Your task to perform on an android device: Search for usb-b on newegg, select the first entry, and add it to the cart. Image 0: 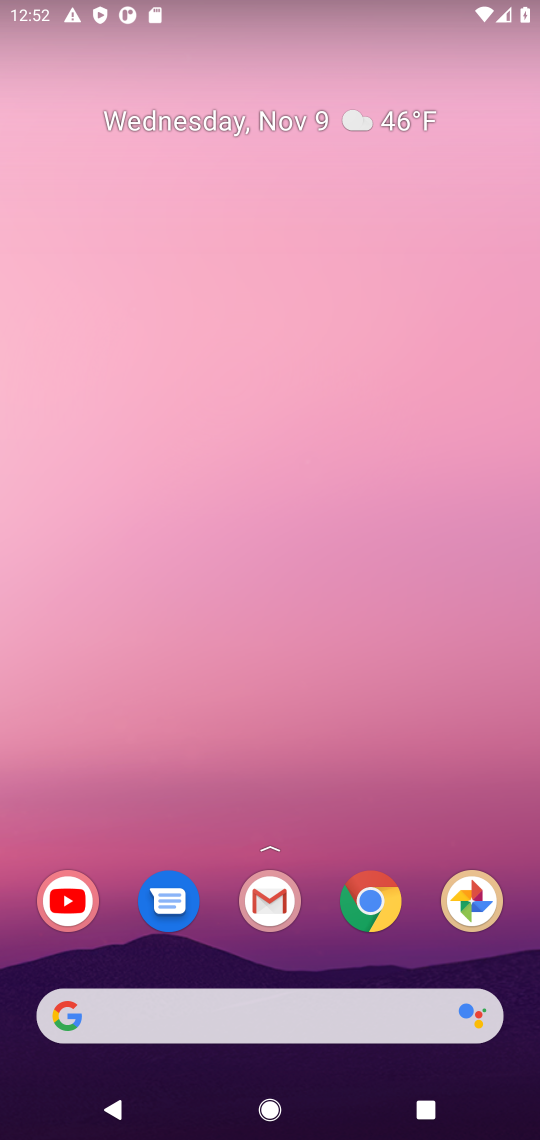
Step 0: click (370, 916)
Your task to perform on an android device: Search for usb-b on newegg, select the first entry, and add it to the cart. Image 1: 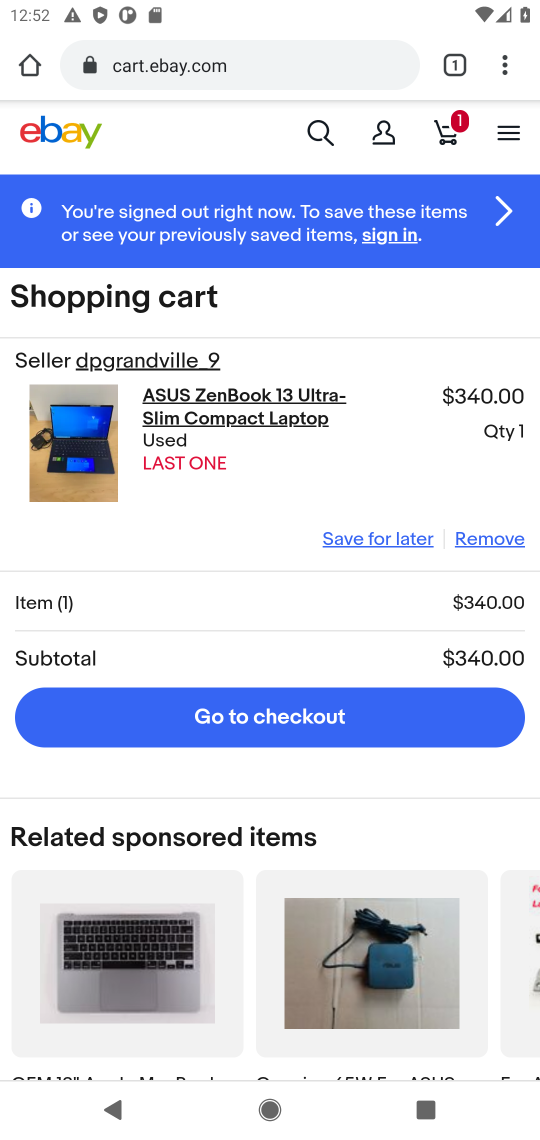
Step 1: click (303, 61)
Your task to perform on an android device: Search for usb-b on newegg, select the first entry, and add it to the cart. Image 2: 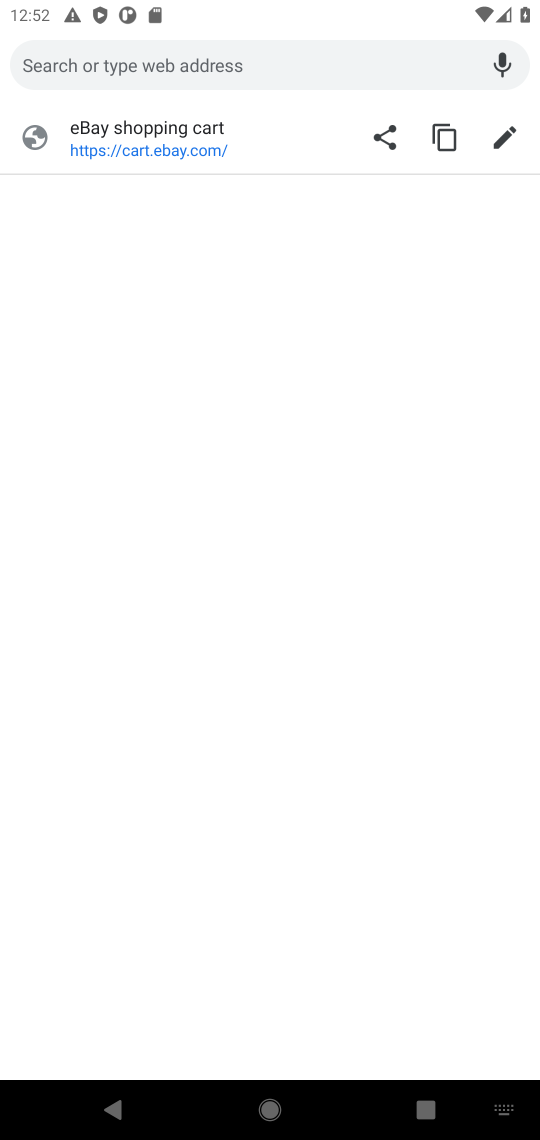
Step 2: type "newegg"
Your task to perform on an android device: Search for usb-b on newegg, select the first entry, and add it to the cart. Image 3: 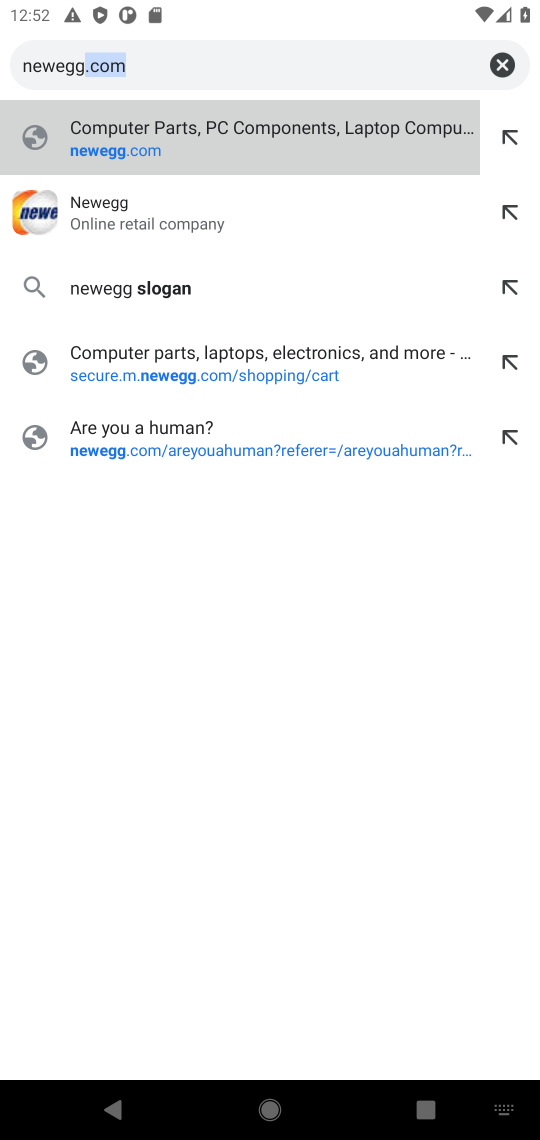
Step 3: press enter
Your task to perform on an android device: Search for usb-b on newegg, select the first entry, and add it to the cart. Image 4: 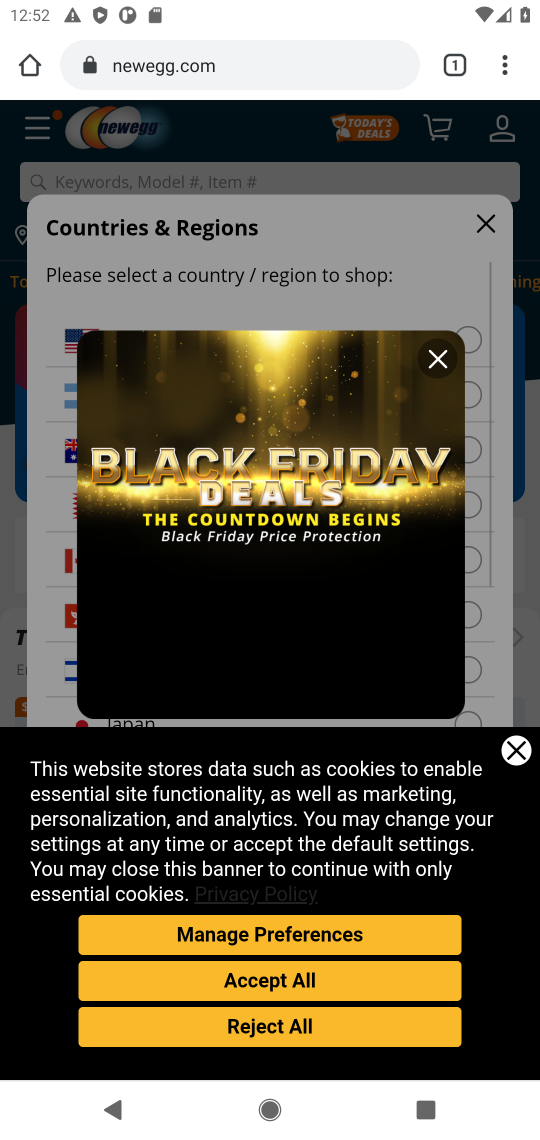
Step 4: click (261, 980)
Your task to perform on an android device: Search for usb-b on newegg, select the first entry, and add it to the cart. Image 5: 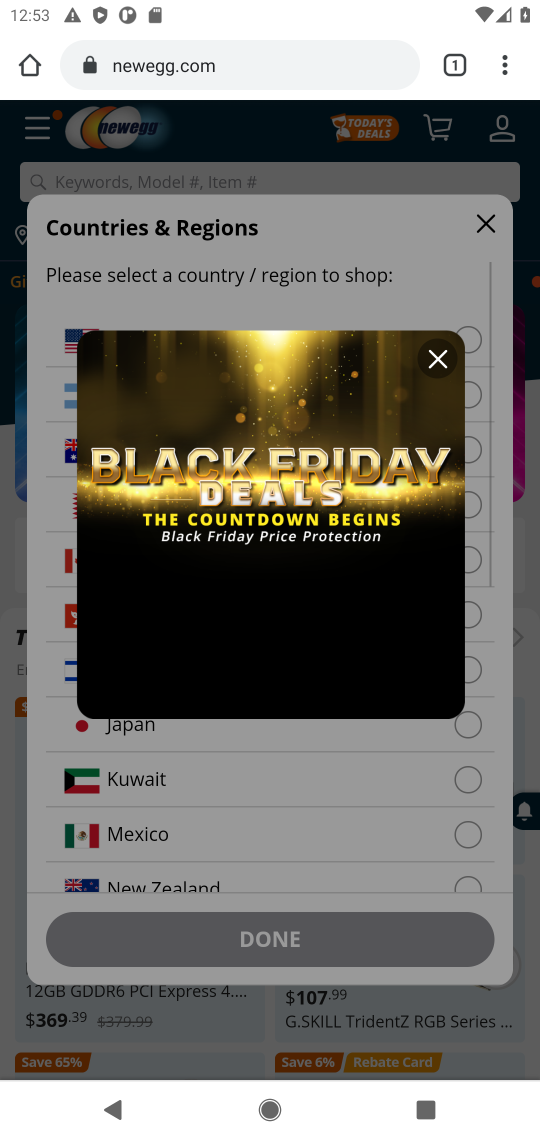
Step 5: click (436, 360)
Your task to perform on an android device: Search for usb-b on newegg, select the first entry, and add it to the cart. Image 6: 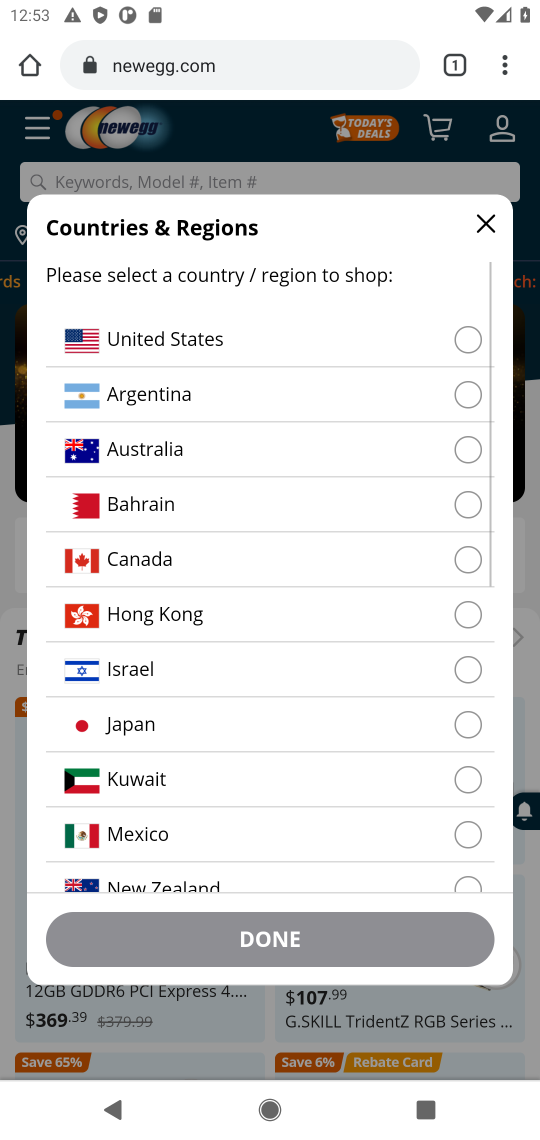
Step 6: click (464, 340)
Your task to perform on an android device: Search for usb-b on newegg, select the first entry, and add it to the cart. Image 7: 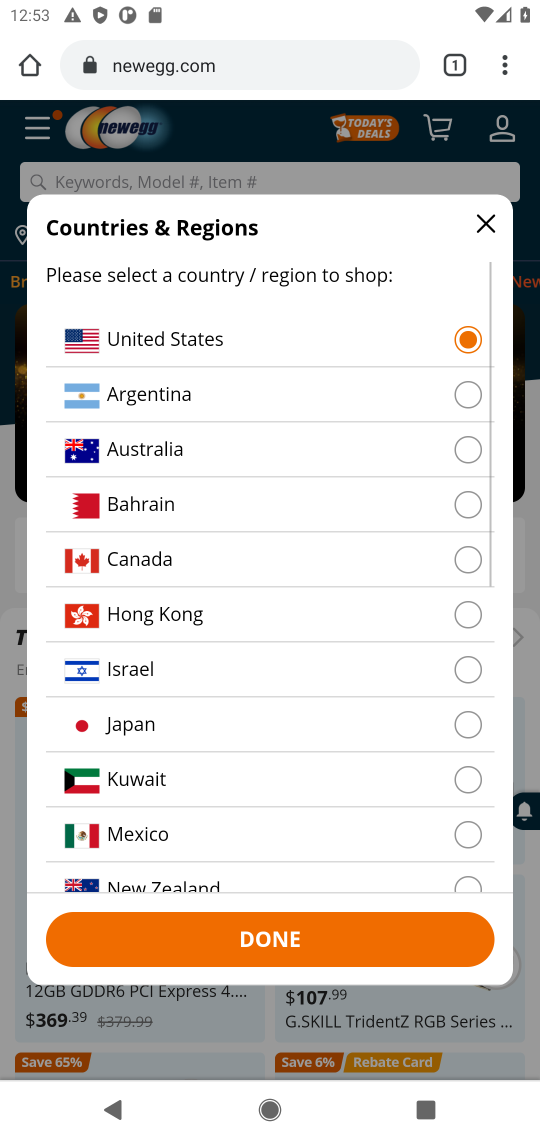
Step 7: click (274, 926)
Your task to perform on an android device: Search for usb-b on newegg, select the first entry, and add it to the cart. Image 8: 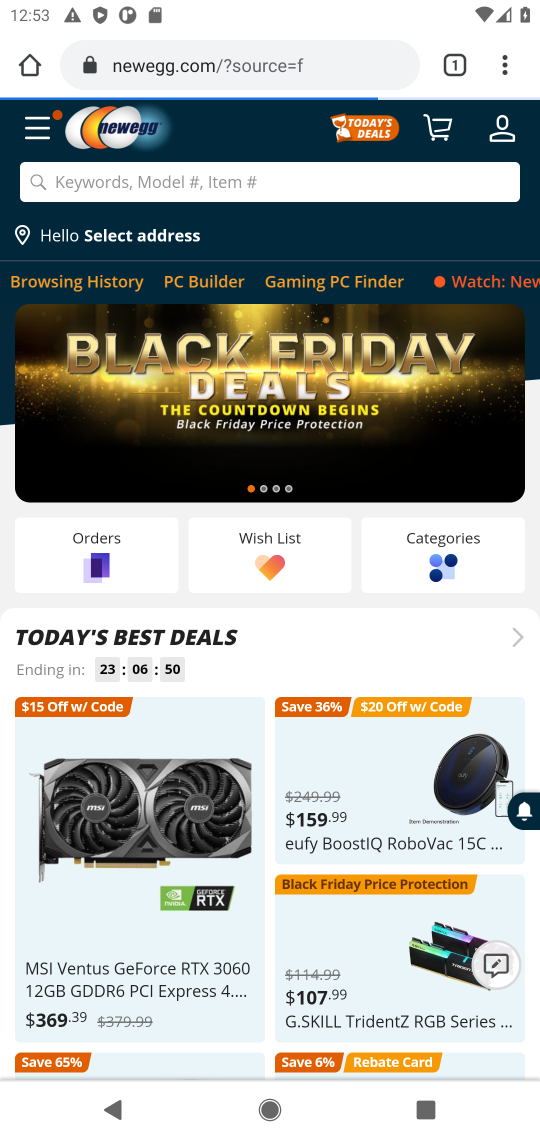
Step 8: click (369, 175)
Your task to perform on an android device: Search for usb-b on newegg, select the first entry, and add it to the cart. Image 9: 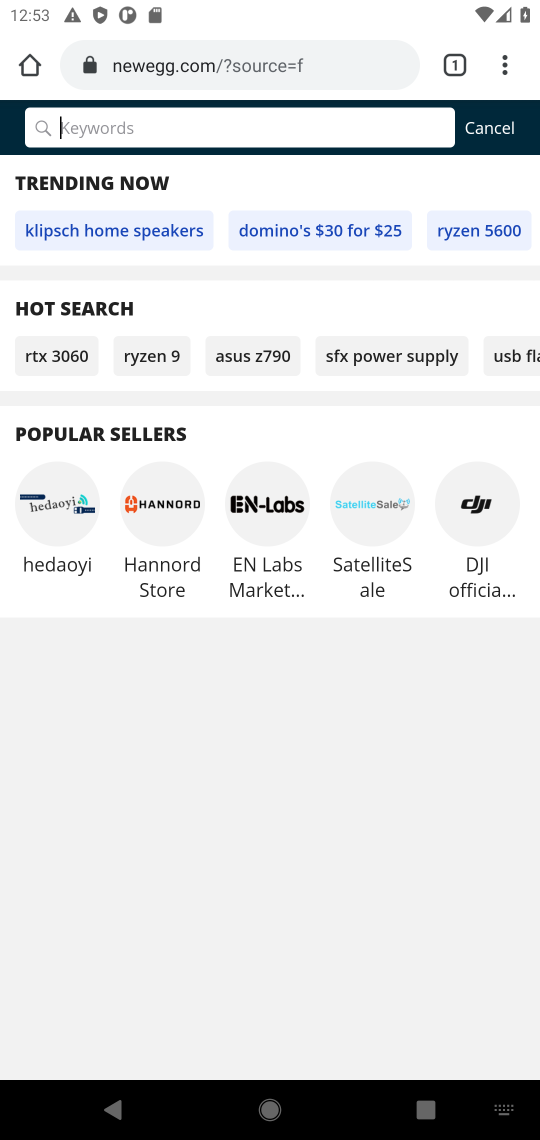
Step 9: type "usb-b"
Your task to perform on an android device: Search for usb-b on newegg, select the first entry, and add it to the cart. Image 10: 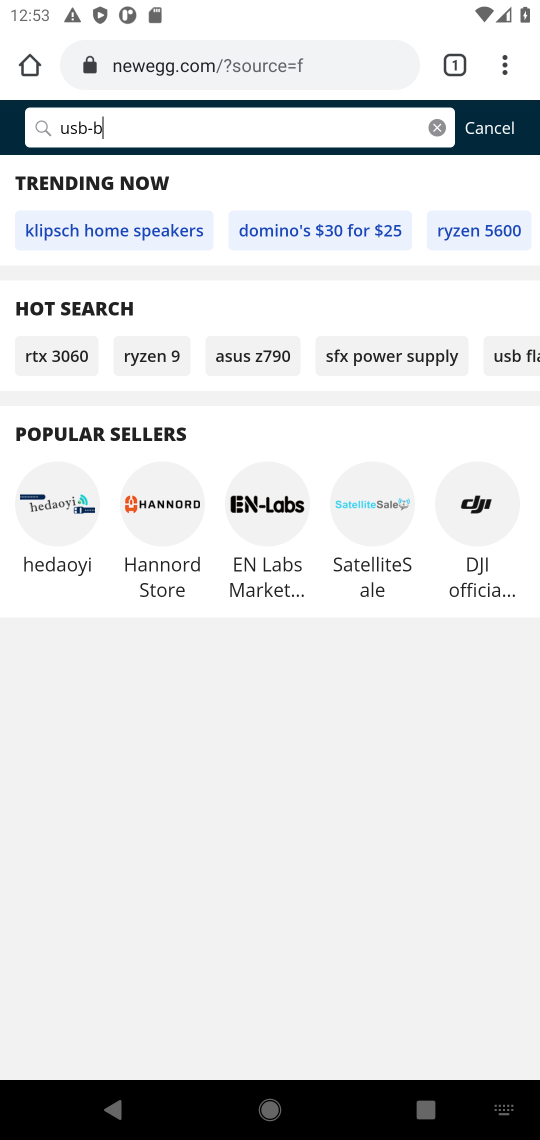
Step 10: press enter
Your task to perform on an android device: Search for usb-b on newegg, select the first entry, and add it to the cart. Image 11: 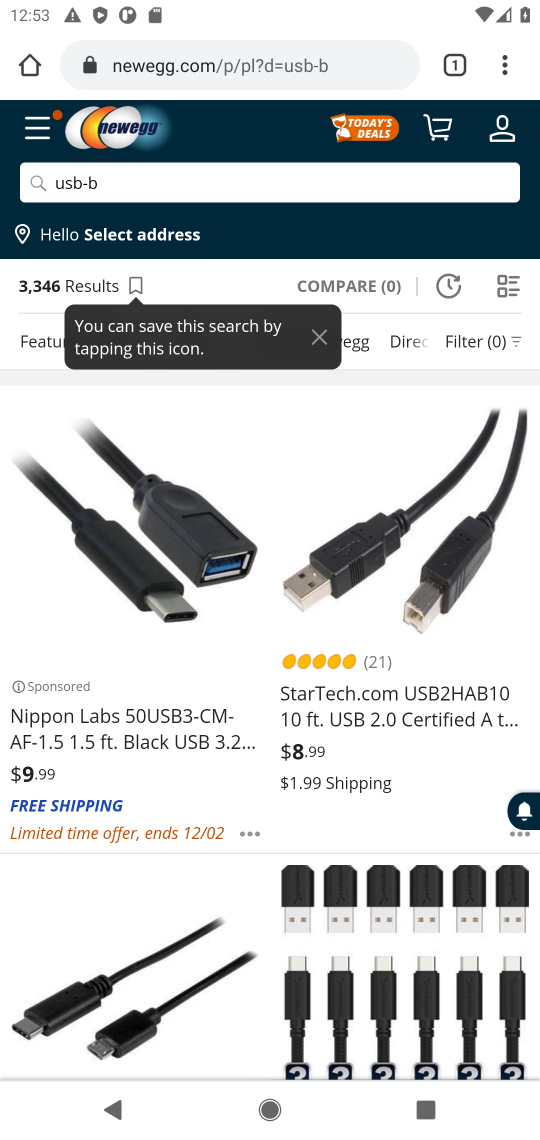
Step 11: task complete